Your task to perform on an android device: open a new tab in the chrome app Image 0: 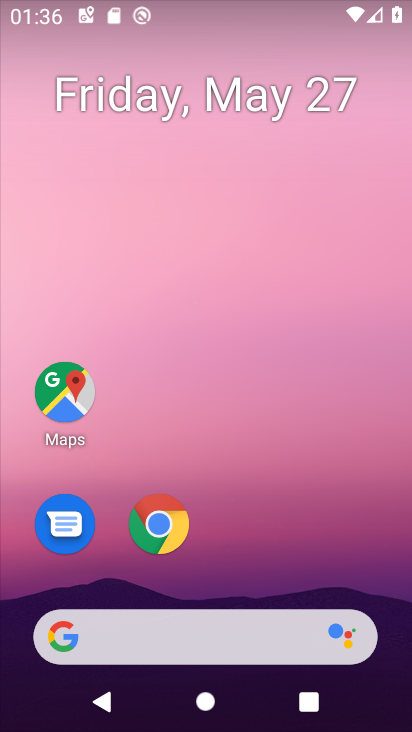
Step 0: click (165, 519)
Your task to perform on an android device: open a new tab in the chrome app Image 1: 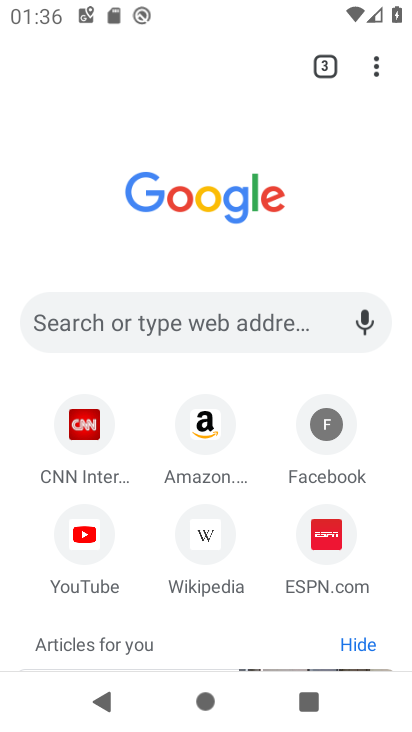
Step 1: click (371, 69)
Your task to perform on an android device: open a new tab in the chrome app Image 2: 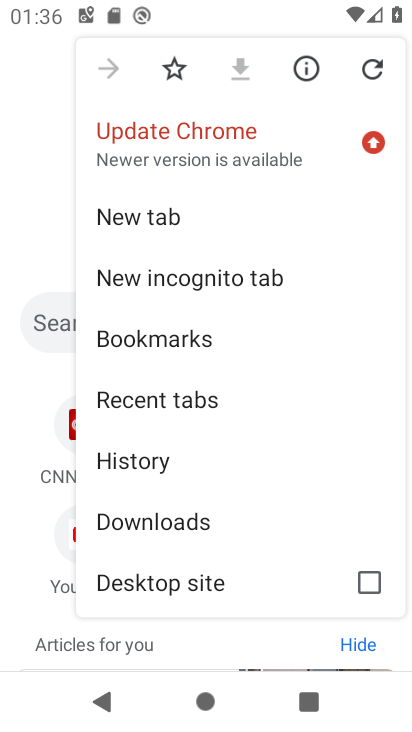
Step 2: click (234, 208)
Your task to perform on an android device: open a new tab in the chrome app Image 3: 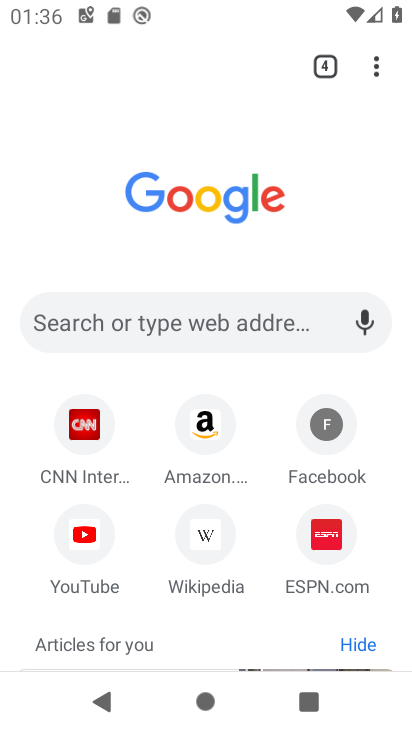
Step 3: task complete